Your task to perform on an android device: toggle notifications settings in the gmail app Image 0: 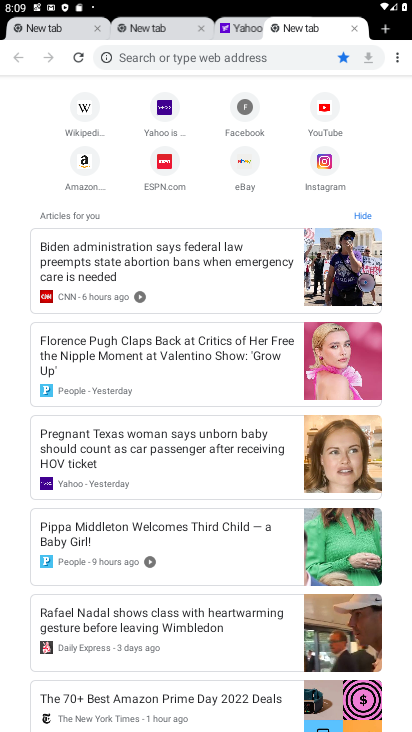
Step 0: press back button
Your task to perform on an android device: toggle notifications settings in the gmail app Image 1: 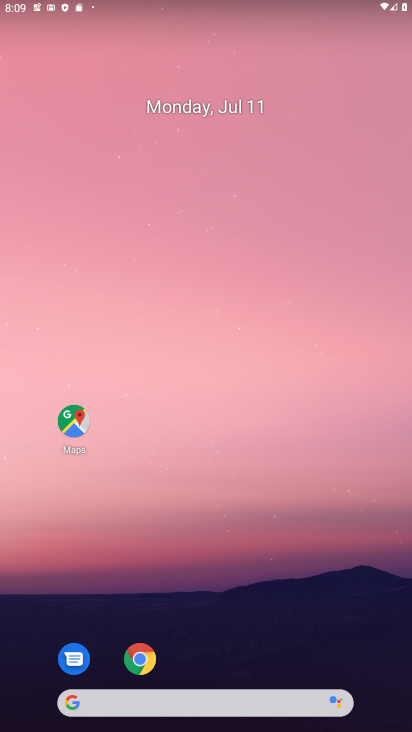
Step 1: drag from (221, 613) to (212, 161)
Your task to perform on an android device: toggle notifications settings in the gmail app Image 2: 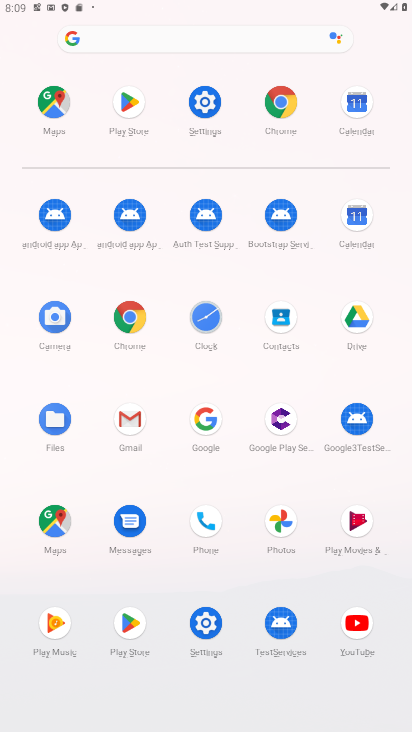
Step 2: click (122, 417)
Your task to perform on an android device: toggle notifications settings in the gmail app Image 3: 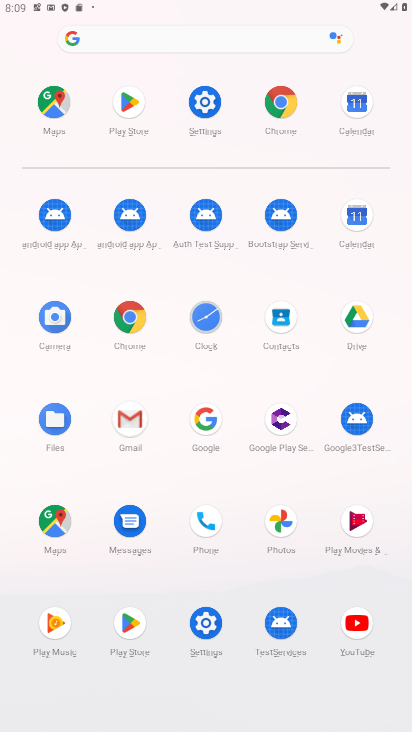
Step 3: click (121, 417)
Your task to perform on an android device: toggle notifications settings in the gmail app Image 4: 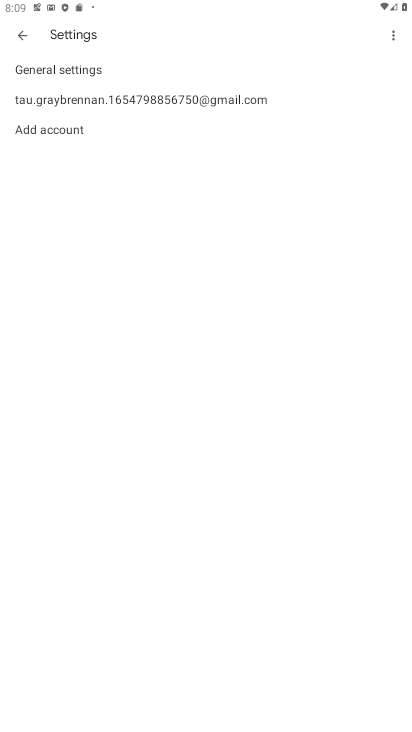
Step 4: click (77, 94)
Your task to perform on an android device: toggle notifications settings in the gmail app Image 5: 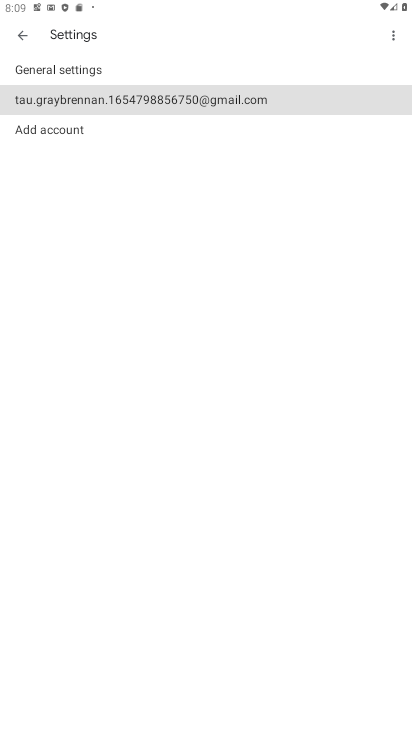
Step 5: click (83, 87)
Your task to perform on an android device: toggle notifications settings in the gmail app Image 6: 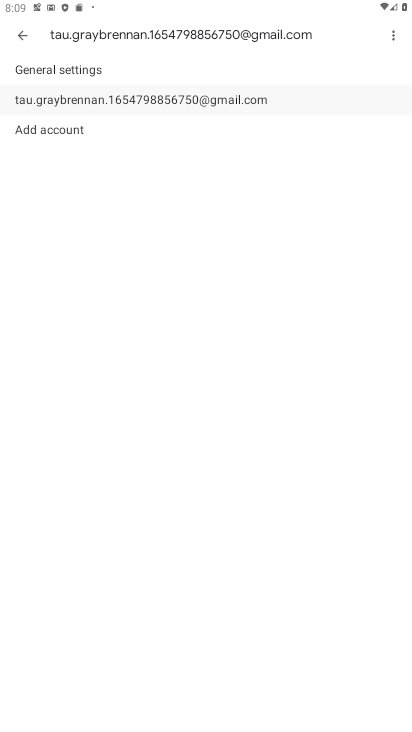
Step 6: click (83, 87)
Your task to perform on an android device: toggle notifications settings in the gmail app Image 7: 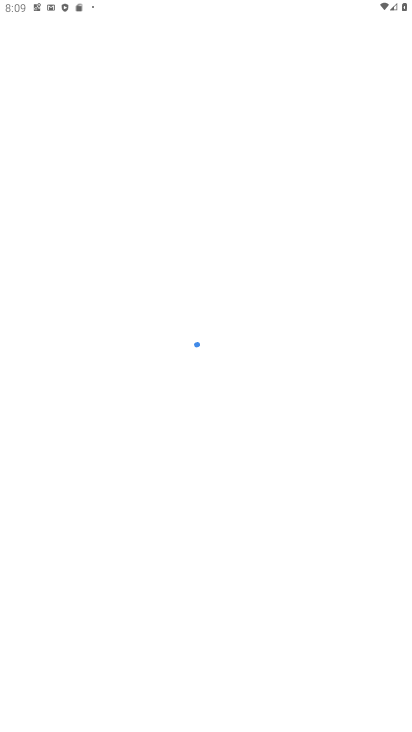
Step 7: press back button
Your task to perform on an android device: toggle notifications settings in the gmail app Image 8: 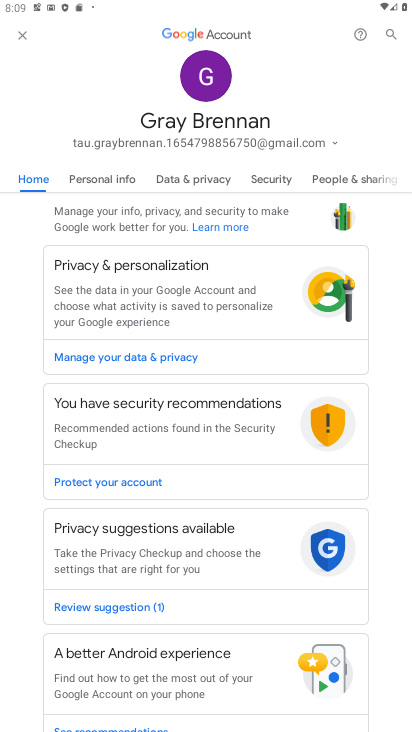
Step 8: click (24, 27)
Your task to perform on an android device: toggle notifications settings in the gmail app Image 9: 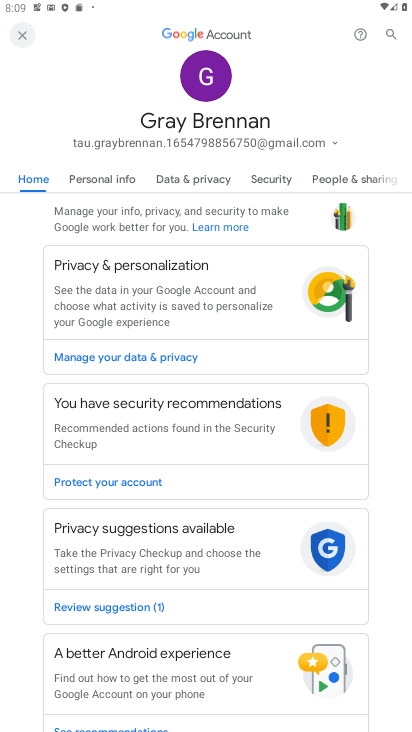
Step 9: click (24, 27)
Your task to perform on an android device: toggle notifications settings in the gmail app Image 10: 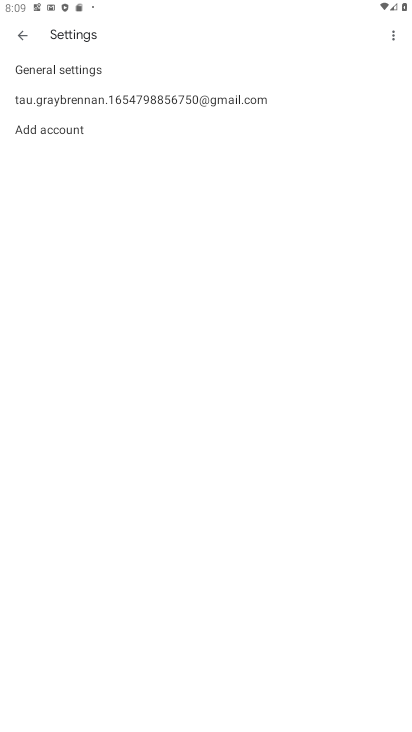
Step 10: click (74, 94)
Your task to perform on an android device: toggle notifications settings in the gmail app Image 11: 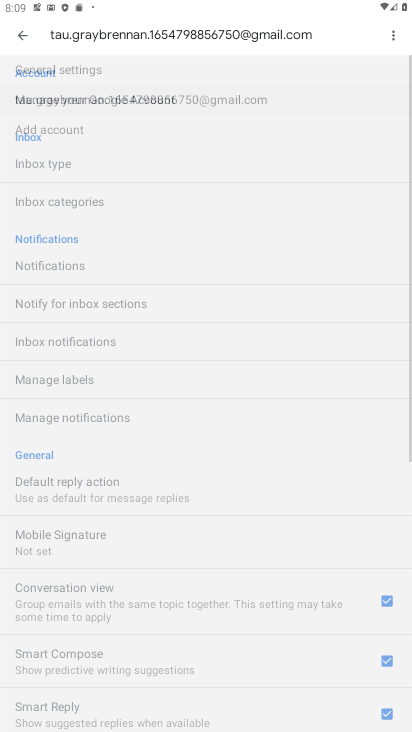
Step 11: click (74, 94)
Your task to perform on an android device: toggle notifications settings in the gmail app Image 12: 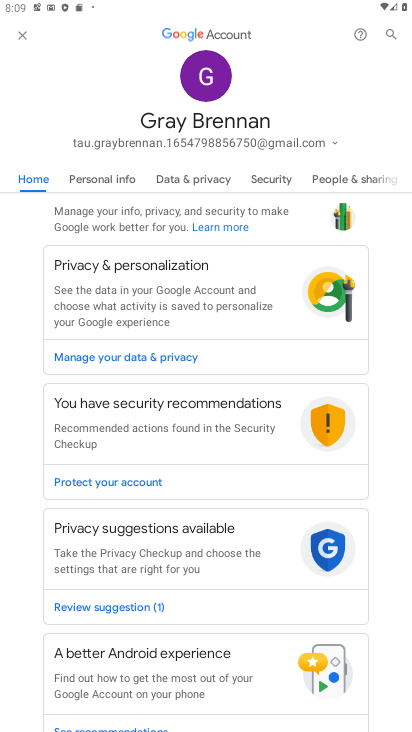
Step 12: click (18, 29)
Your task to perform on an android device: toggle notifications settings in the gmail app Image 13: 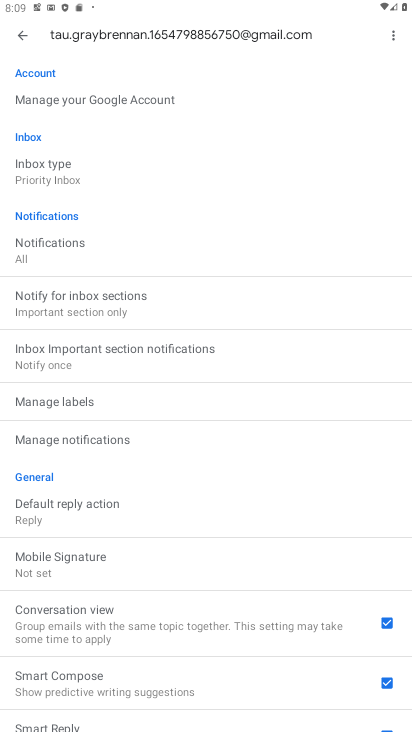
Step 13: click (45, 234)
Your task to perform on an android device: toggle notifications settings in the gmail app Image 14: 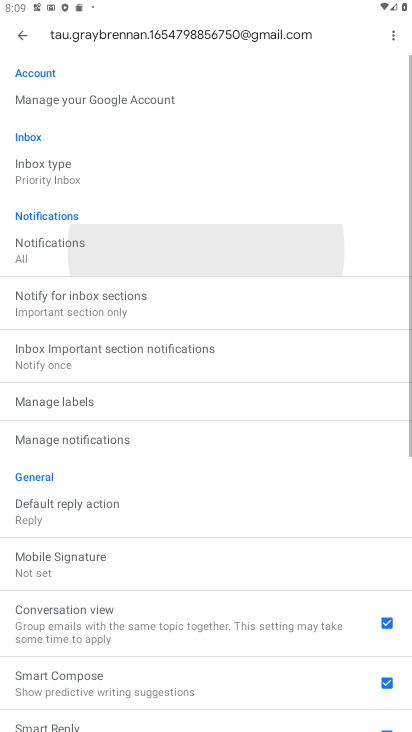
Step 14: click (46, 236)
Your task to perform on an android device: toggle notifications settings in the gmail app Image 15: 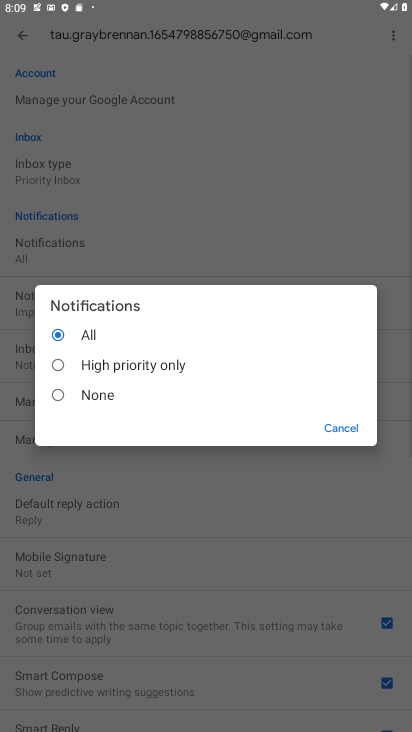
Step 15: click (62, 363)
Your task to perform on an android device: toggle notifications settings in the gmail app Image 16: 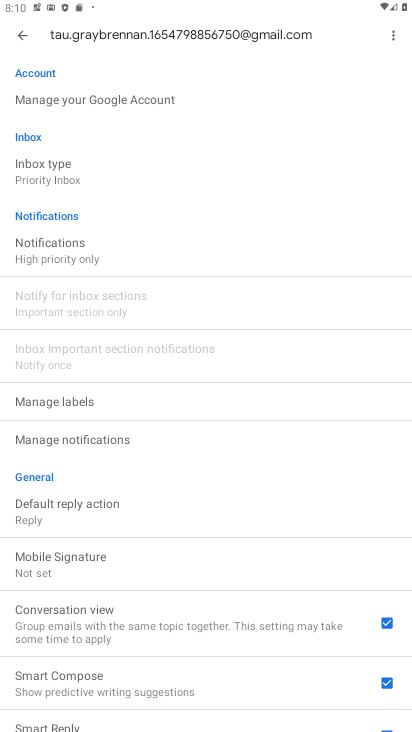
Step 16: task complete